Your task to perform on an android device: Look up the best gaming headphones on Best Buy Image 0: 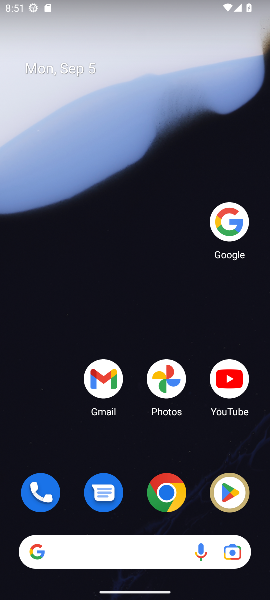
Step 0: click (218, 220)
Your task to perform on an android device: Look up the best gaming headphones on Best Buy Image 1: 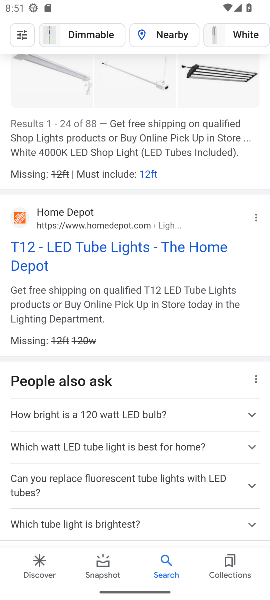
Step 1: drag from (115, 124) to (113, 324)
Your task to perform on an android device: Look up the best gaming headphones on Best Buy Image 2: 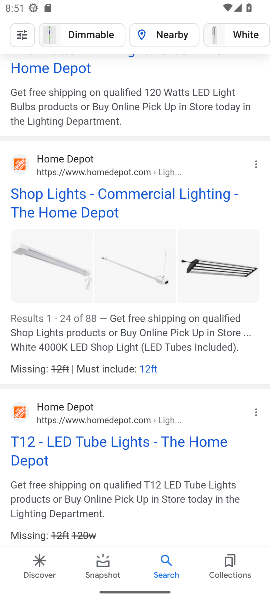
Step 2: drag from (116, 100) to (110, 427)
Your task to perform on an android device: Look up the best gaming headphones on Best Buy Image 3: 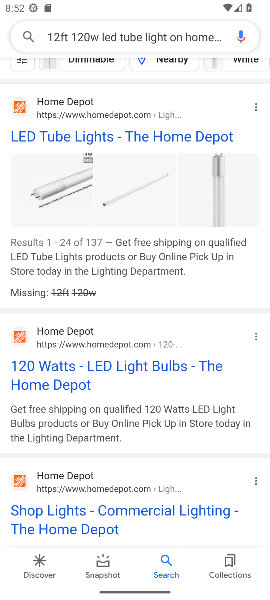
Step 3: click (156, 30)
Your task to perform on an android device: Look up the best gaming headphones on Best Buy Image 4: 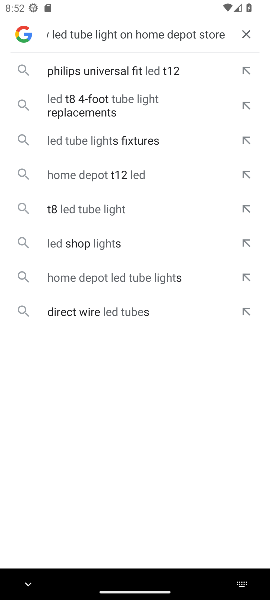
Step 4: click (246, 28)
Your task to perform on an android device: Look up the best gaming headphones on Best Buy Image 5: 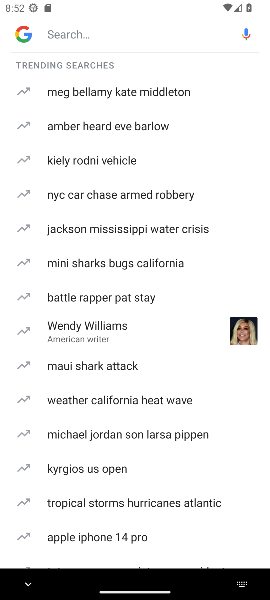
Step 5: click (110, 27)
Your task to perform on an android device: Look up the best gaming headphones on Best Buy Image 6: 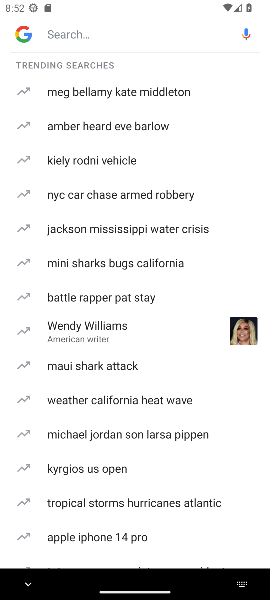
Step 6: type " the best gaming headphones on Best Buy "
Your task to perform on an android device: Look up the best gaming headphones on Best Buy Image 7: 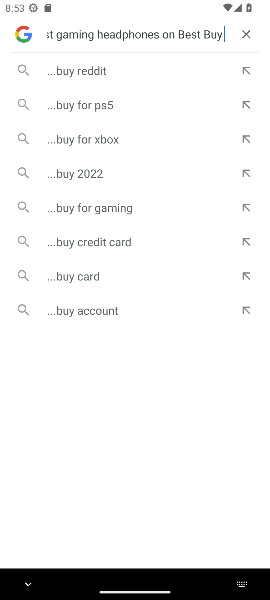
Step 7: click (92, 74)
Your task to perform on an android device: Look up the best gaming headphones on Best Buy Image 8: 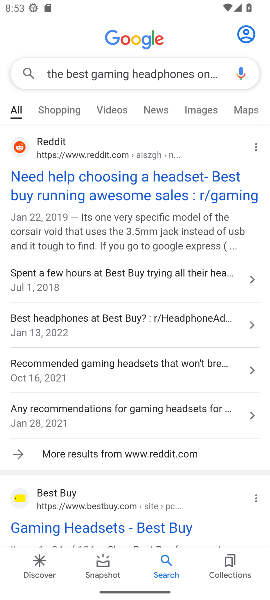
Step 8: task complete